Your task to perform on an android device: turn off wifi Image 0: 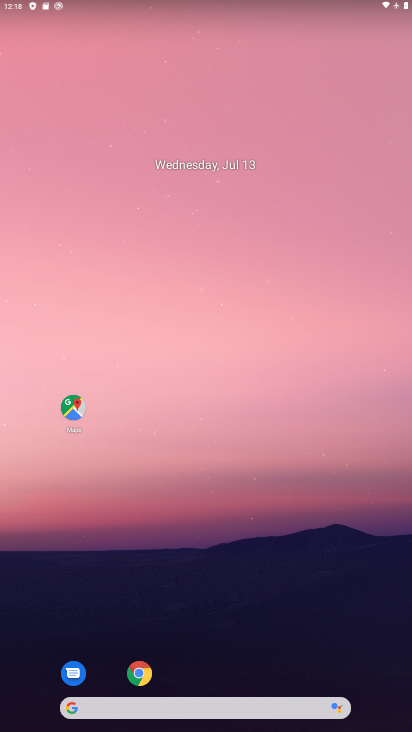
Step 0: drag from (252, 679) to (222, 264)
Your task to perform on an android device: turn off wifi Image 1: 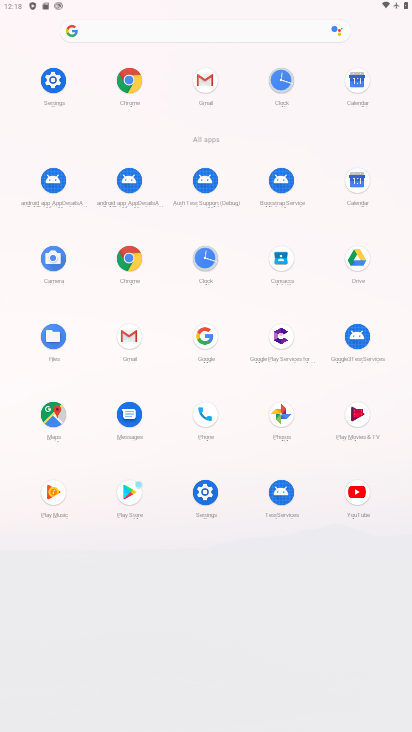
Step 1: click (68, 85)
Your task to perform on an android device: turn off wifi Image 2: 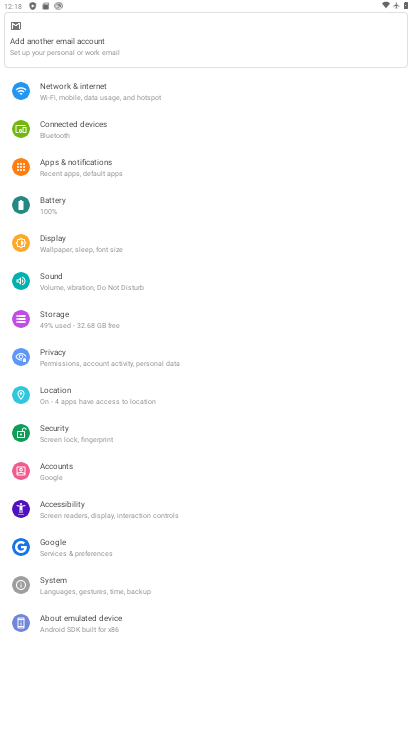
Step 2: click (126, 89)
Your task to perform on an android device: turn off wifi Image 3: 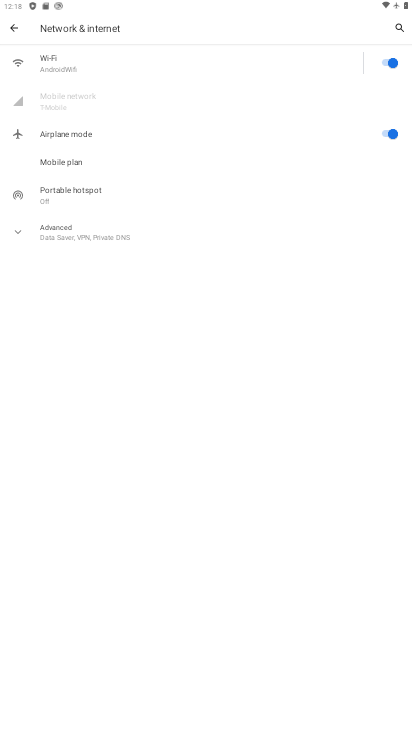
Step 3: click (399, 73)
Your task to perform on an android device: turn off wifi Image 4: 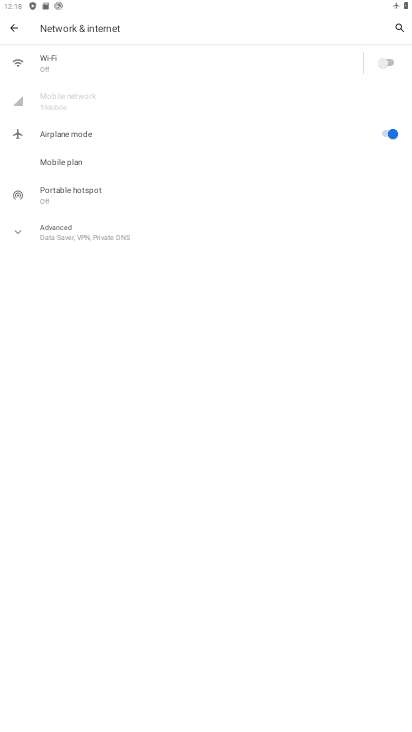
Step 4: task complete